Your task to perform on an android device: Open internet settings Image 0: 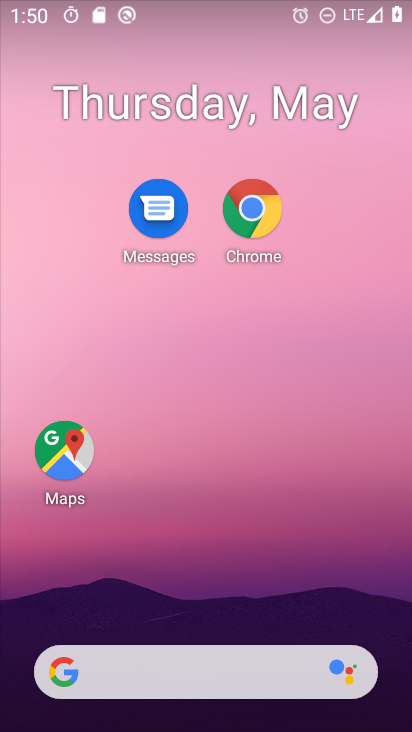
Step 0: drag from (193, 587) to (196, 61)
Your task to perform on an android device: Open internet settings Image 1: 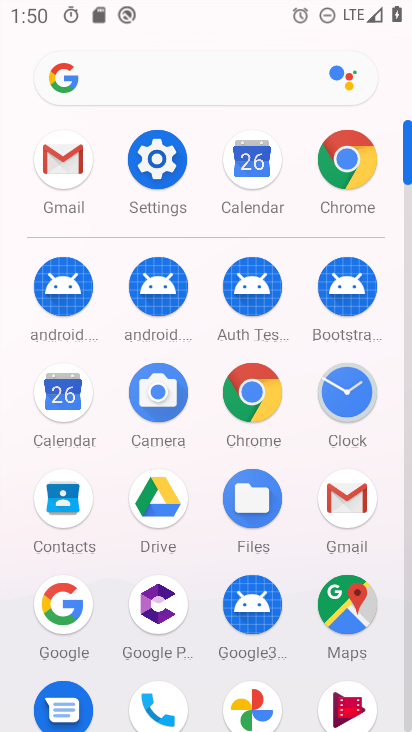
Step 1: click (161, 162)
Your task to perform on an android device: Open internet settings Image 2: 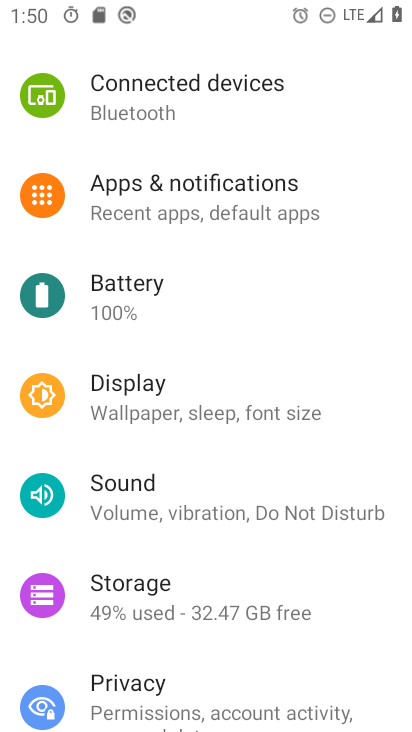
Step 2: drag from (164, 190) to (162, 618)
Your task to perform on an android device: Open internet settings Image 3: 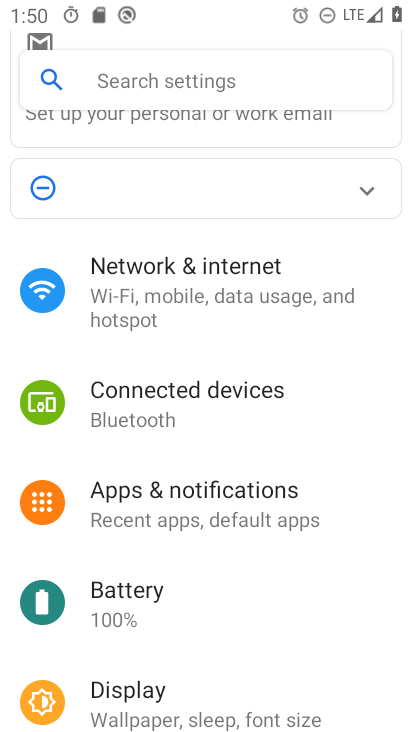
Step 3: click (160, 295)
Your task to perform on an android device: Open internet settings Image 4: 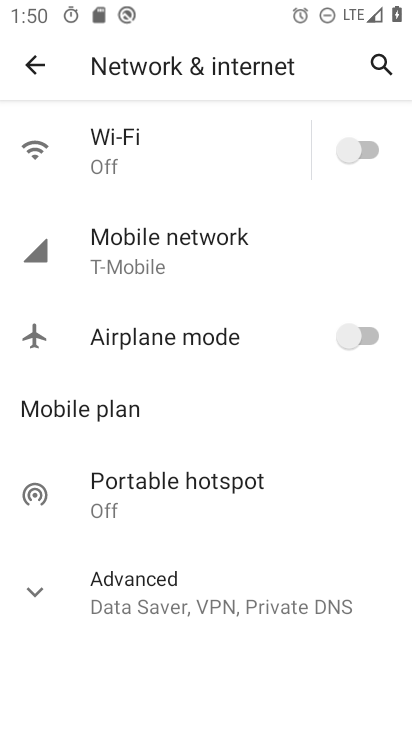
Step 4: task complete